Your task to perform on an android device: empty trash in the gmail app Image 0: 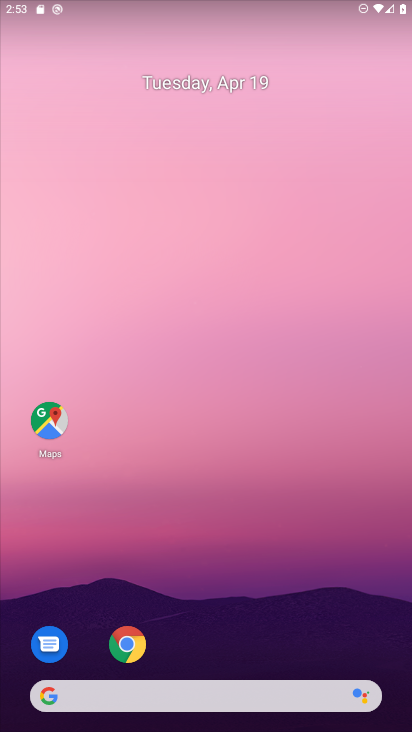
Step 0: drag from (223, 563) to (135, 152)
Your task to perform on an android device: empty trash in the gmail app Image 1: 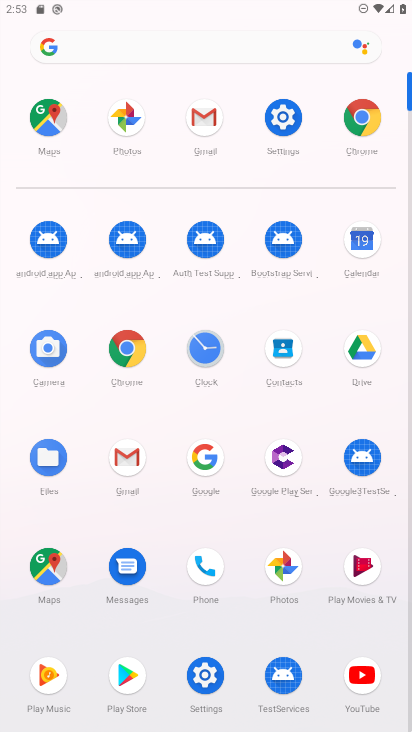
Step 1: click (199, 130)
Your task to perform on an android device: empty trash in the gmail app Image 2: 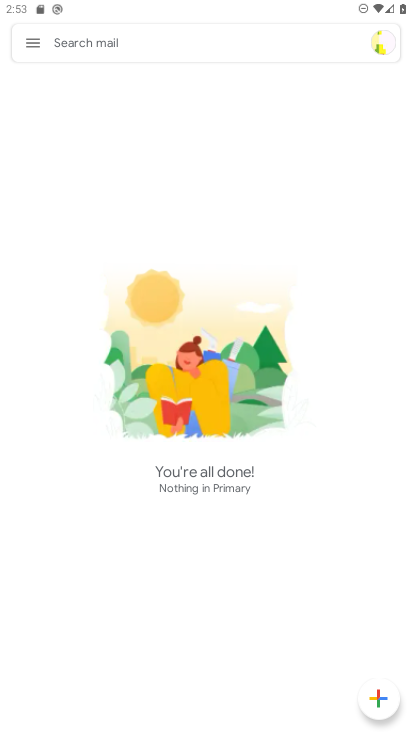
Step 2: click (33, 46)
Your task to perform on an android device: empty trash in the gmail app Image 3: 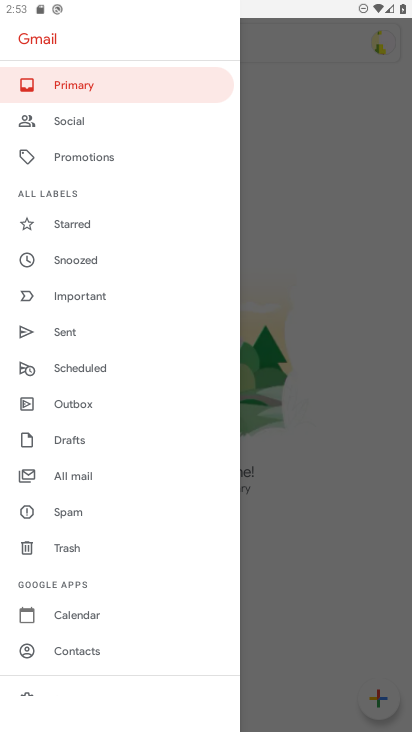
Step 3: click (58, 546)
Your task to perform on an android device: empty trash in the gmail app Image 4: 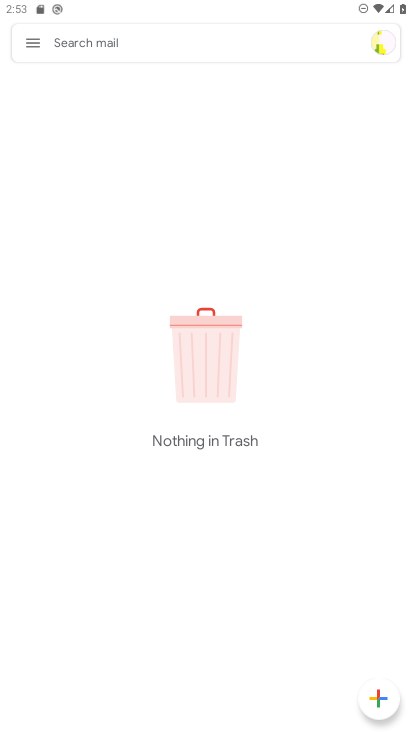
Step 4: task complete